Your task to perform on an android device: Search for vegetarian restaurants on Maps Image 0: 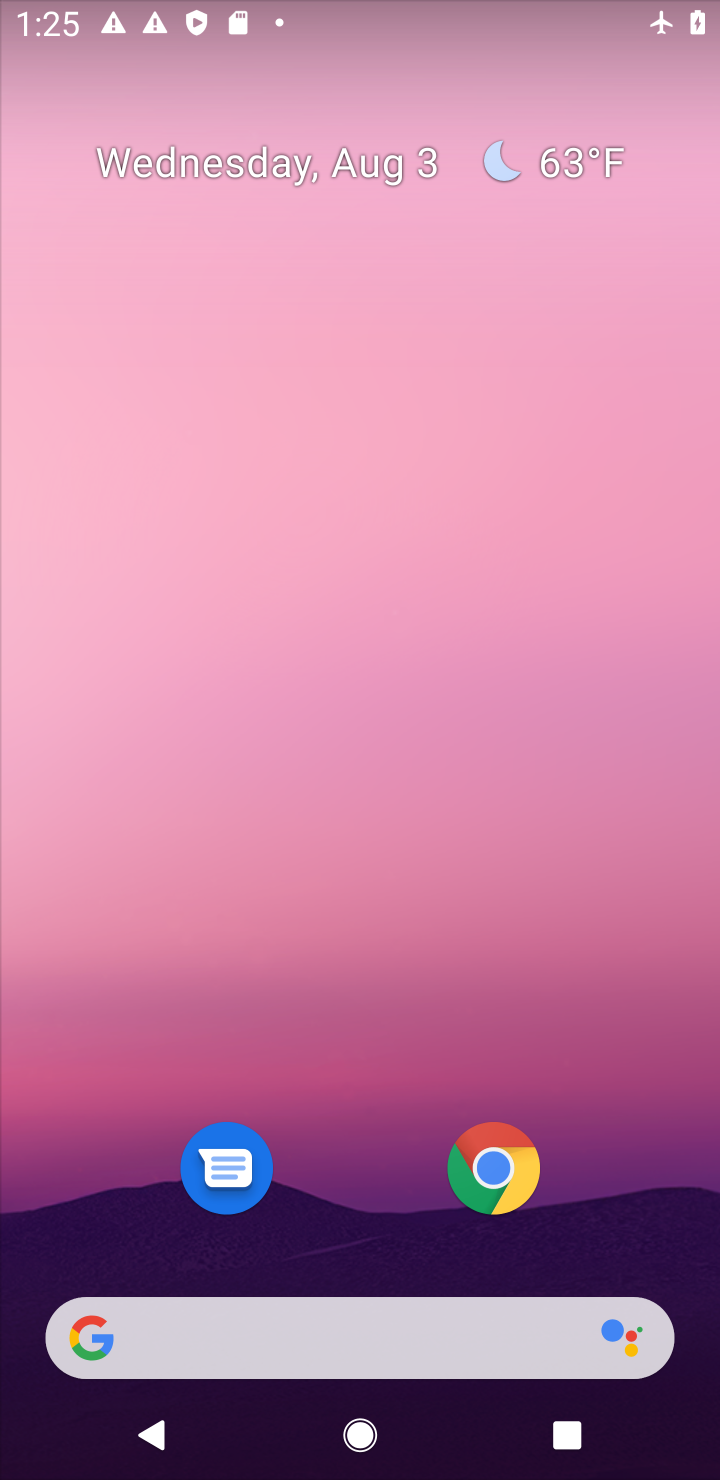
Step 0: drag from (709, 1251) to (601, 156)
Your task to perform on an android device: Search for vegetarian restaurants on Maps Image 1: 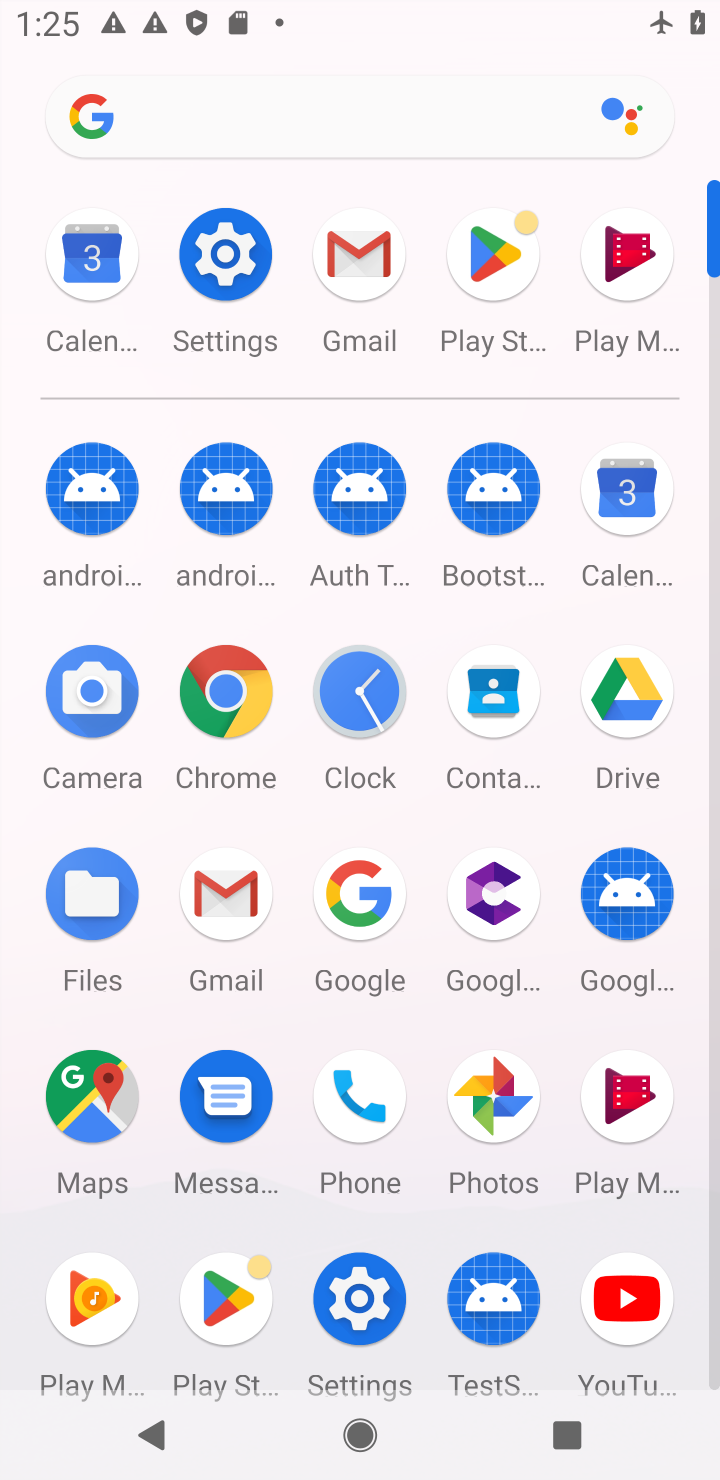
Step 1: click (91, 1094)
Your task to perform on an android device: Search for vegetarian restaurants on Maps Image 2: 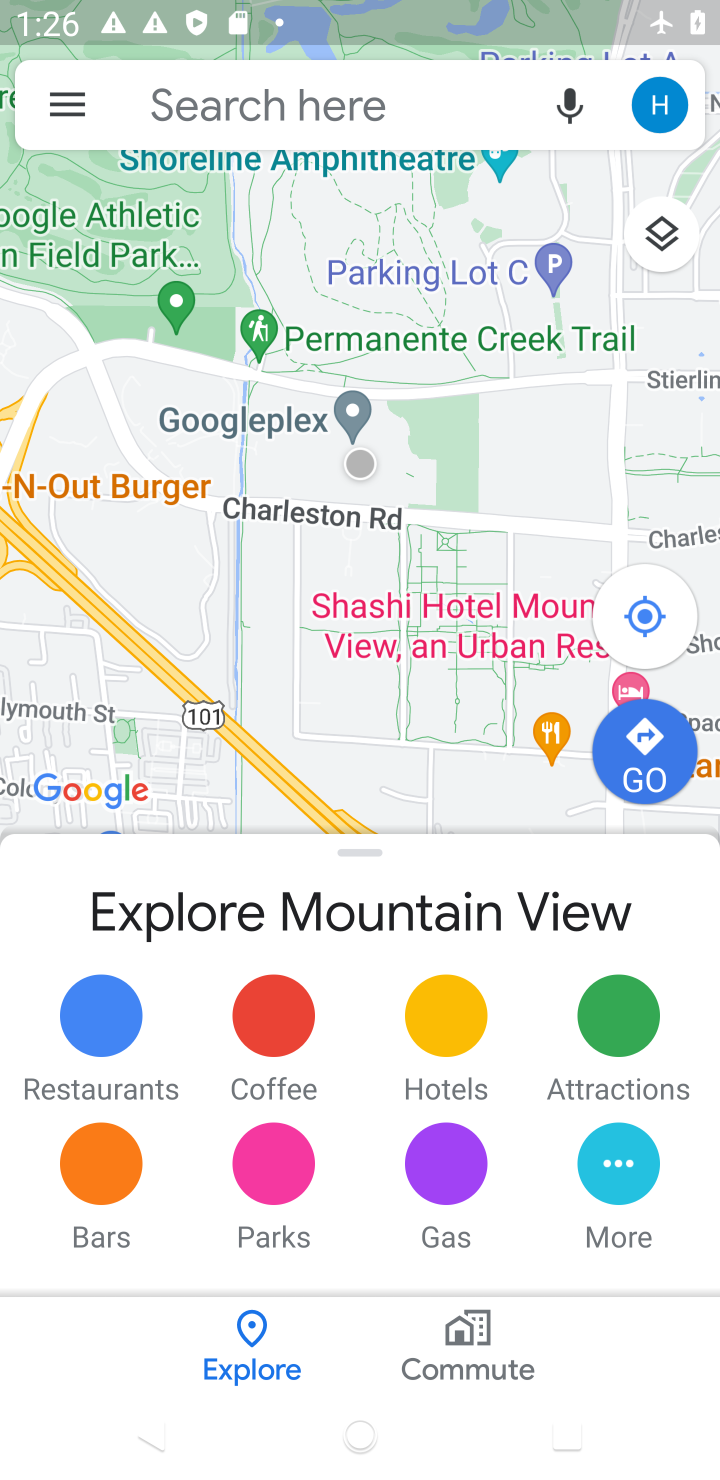
Step 2: click (374, 103)
Your task to perform on an android device: Search for vegetarian restaurants on Maps Image 3: 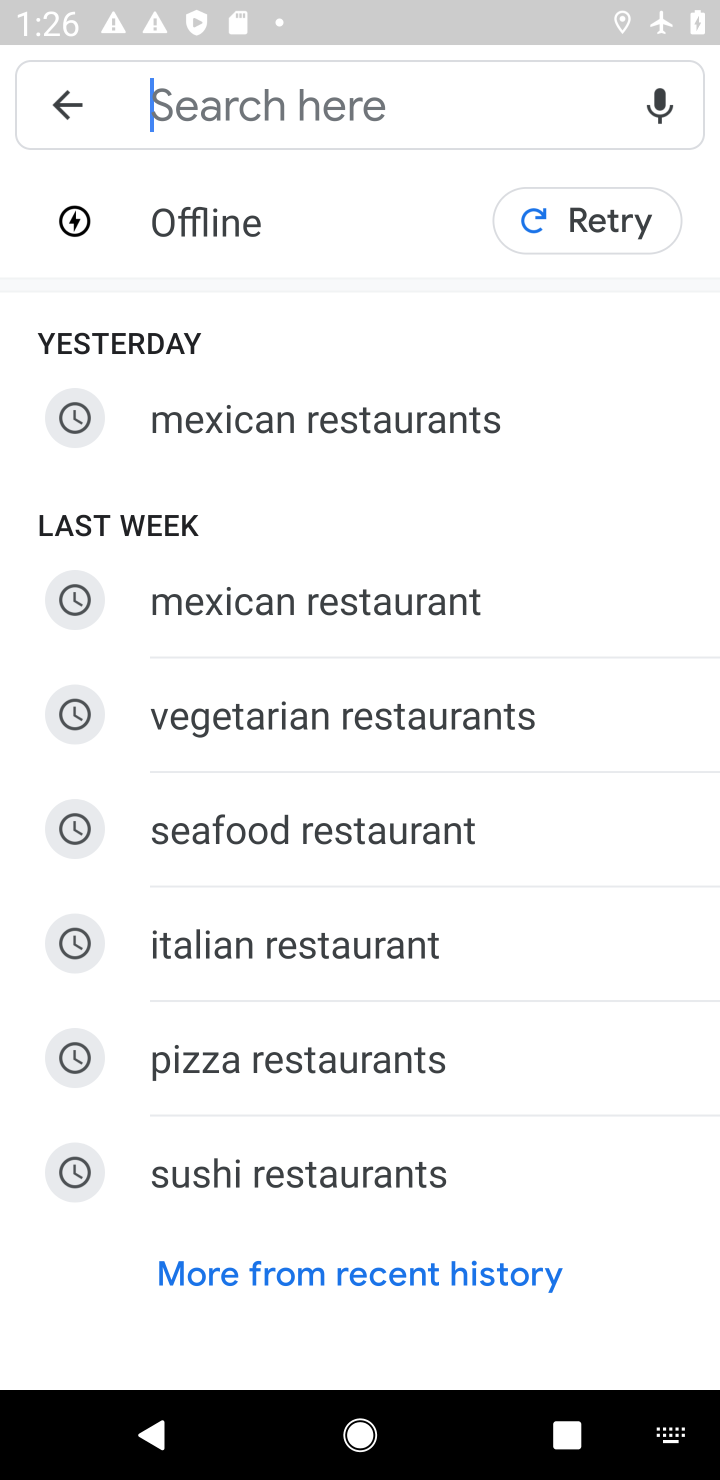
Step 3: type "vegetarian restaurants"
Your task to perform on an android device: Search for vegetarian restaurants on Maps Image 4: 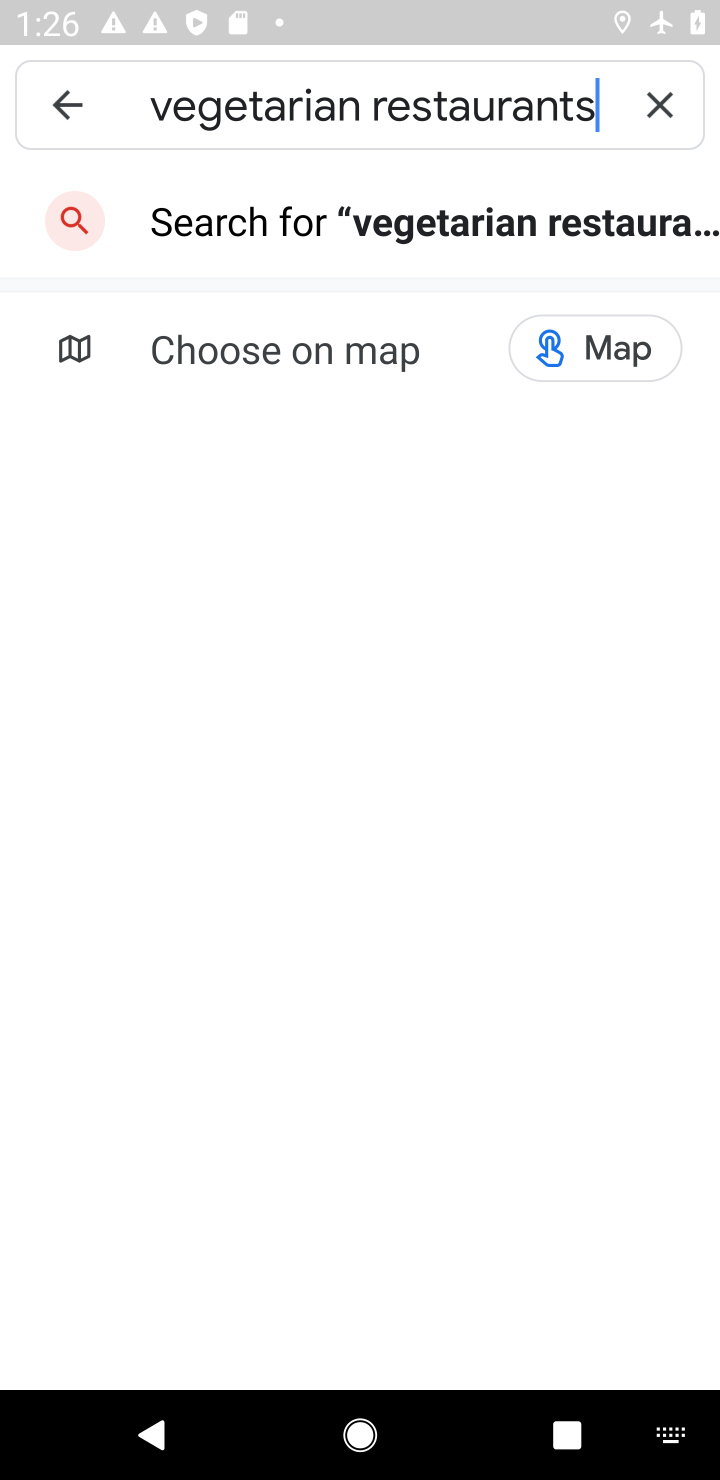
Step 4: click (470, 217)
Your task to perform on an android device: Search for vegetarian restaurants on Maps Image 5: 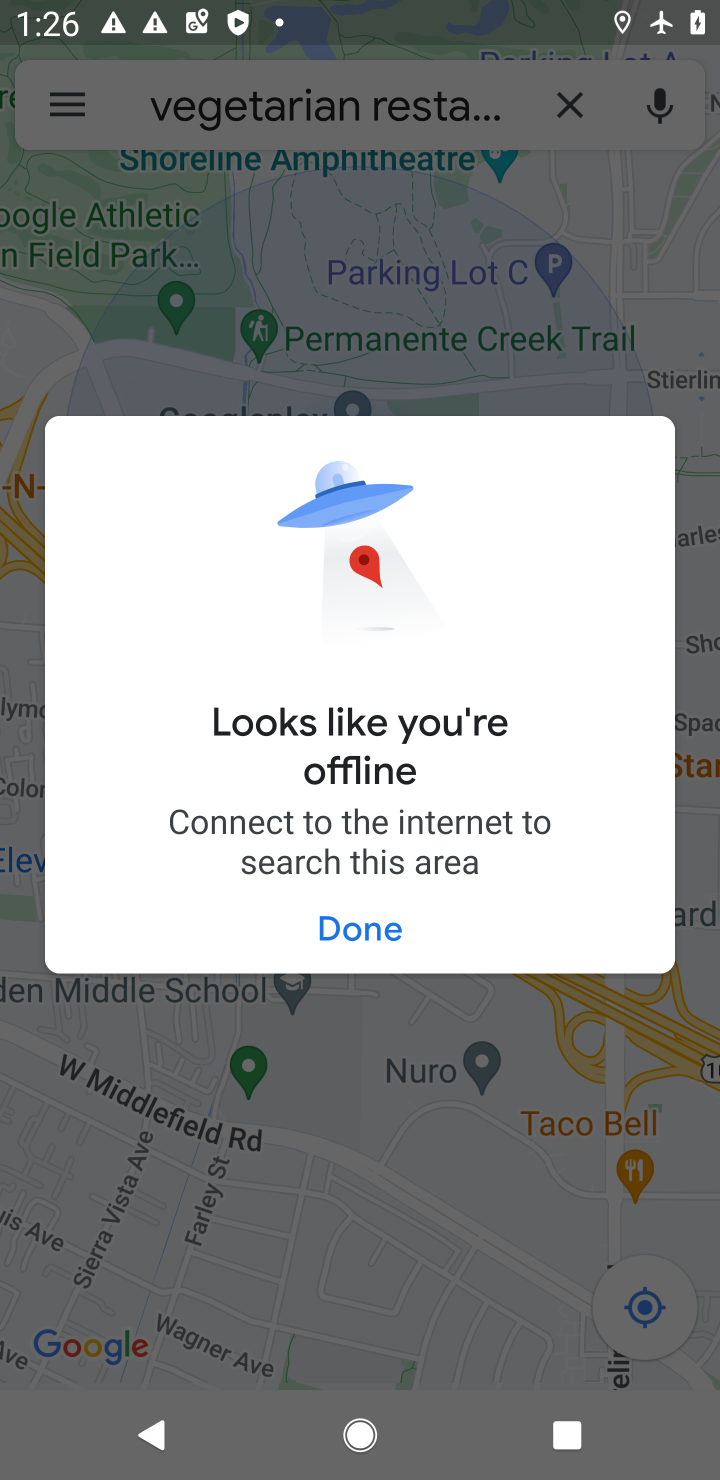
Step 5: click (372, 915)
Your task to perform on an android device: Search for vegetarian restaurants on Maps Image 6: 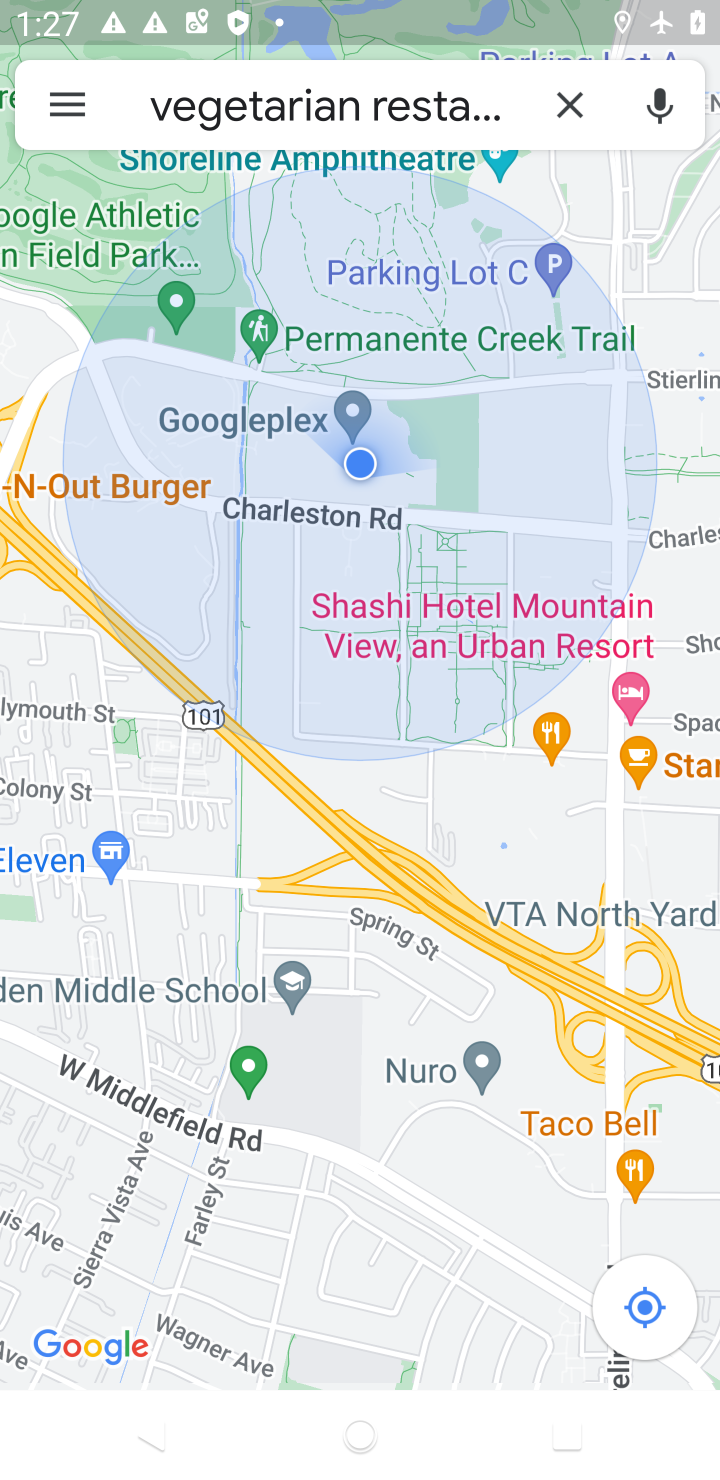
Step 6: task complete